Your task to perform on an android device: Play the last video I watched on Youtube Image 0: 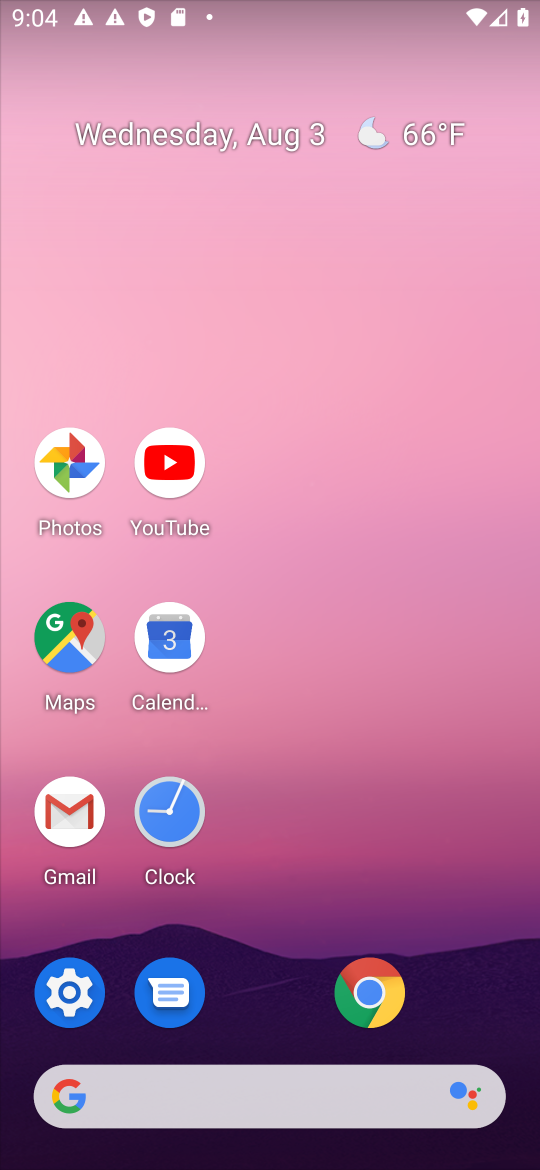
Step 0: click (155, 468)
Your task to perform on an android device: Play the last video I watched on Youtube Image 1: 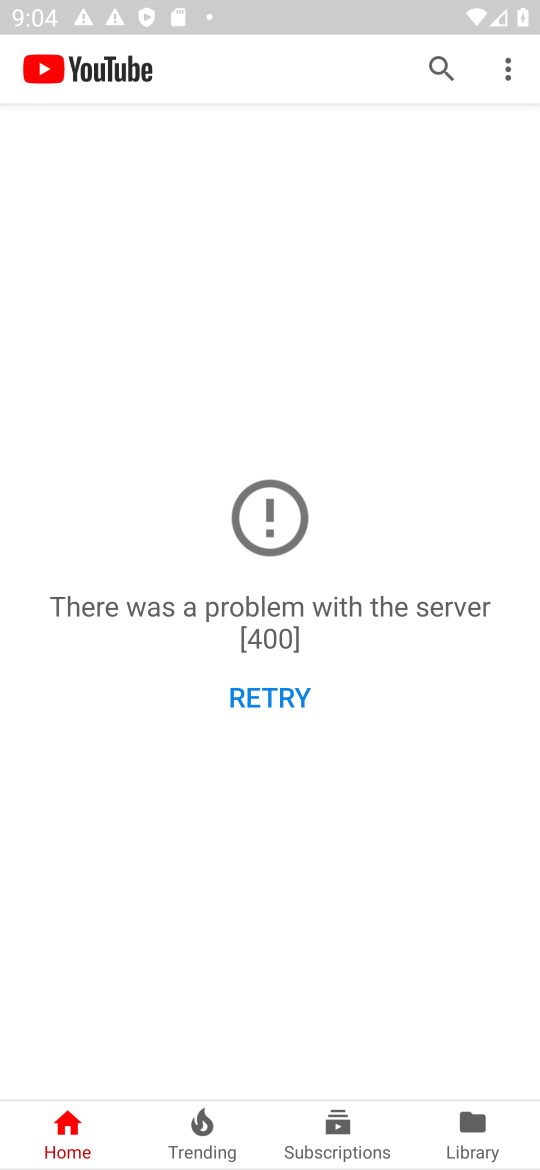
Step 1: click (239, 683)
Your task to perform on an android device: Play the last video I watched on Youtube Image 2: 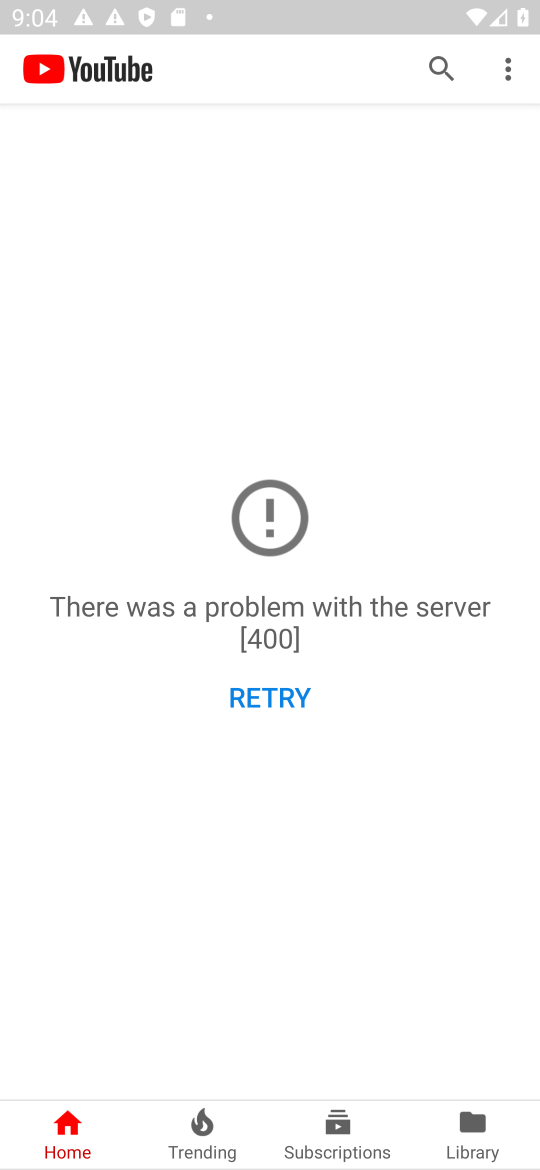
Step 2: click (279, 691)
Your task to perform on an android device: Play the last video I watched on Youtube Image 3: 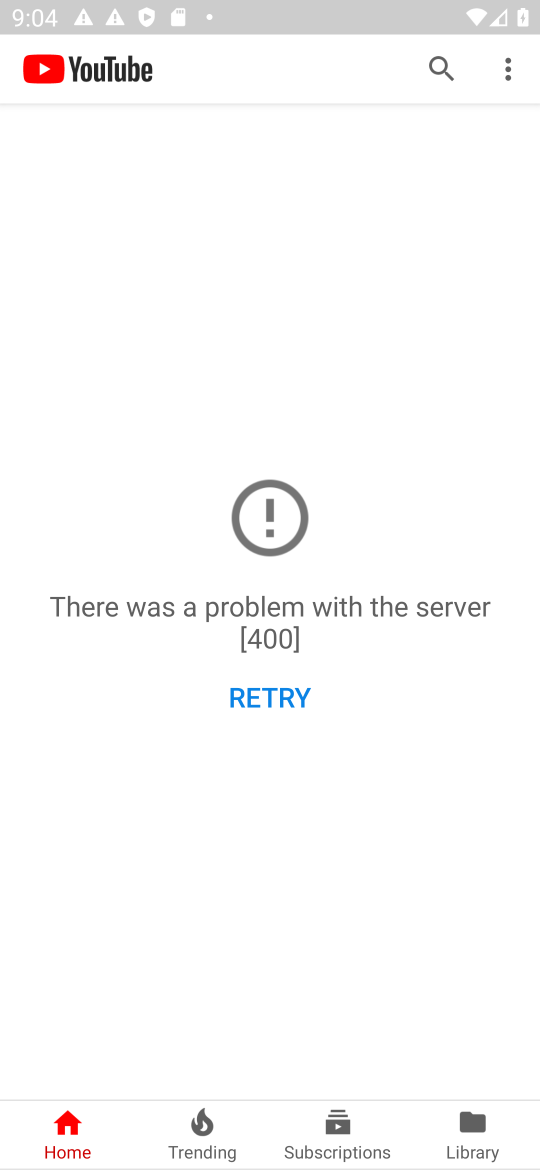
Step 3: click (279, 691)
Your task to perform on an android device: Play the last video I watched on Youtube Image 4: 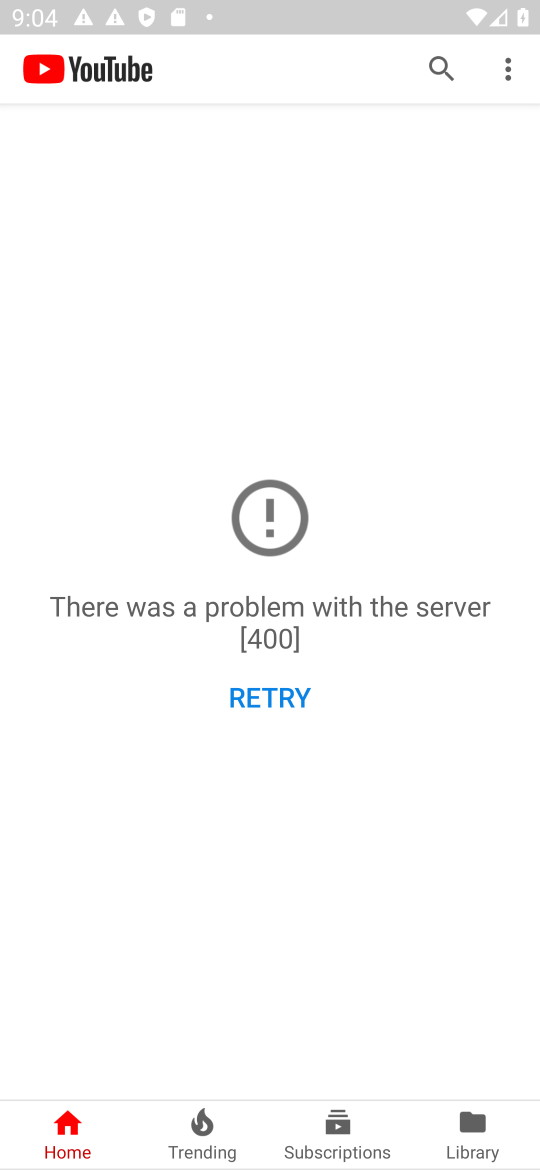
Step 4: task complete